Your task to perform on an android device: Clear all items from cart on ebay. Add duracell triple a to the cart on ebay, then select checkout. Image 0: 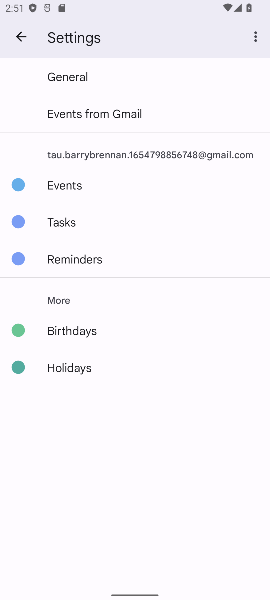
Step 0: press home button
Your task to perform on an android device: Clear all items from cart on ebay. Add duracell triple a to the cart on ebay, then select checkout. Image 1: 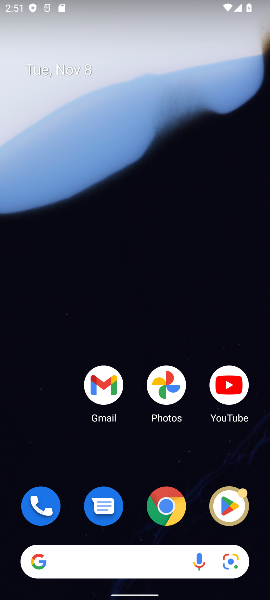
Step 1: click (173, 517)
Your task to perform on an android device: Clear all items from cart on ebay. Add duracell triple a to the cart on ebay, then select checkout. Image 2: 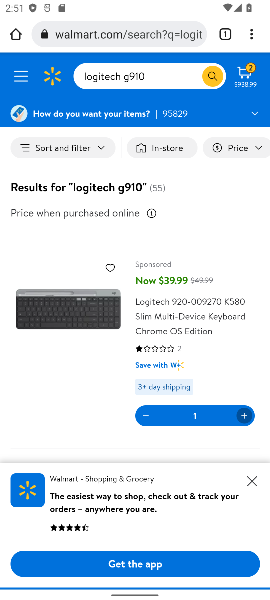
Step 2: click (174, 44)
Your task to perform on an android device: Clear all items from cart on ebay. Add duracell triple a to the cart on ebay, then select checkout. Image 3: 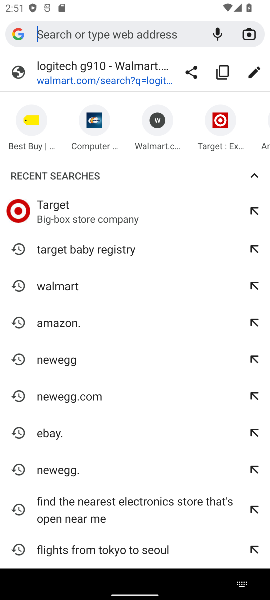
Step 3: type "ebay"
Your task to perform on an android device: Clear all items from cart on ebay. Add duracell triple a to the cart on ebay, then select checkout. Image 4: 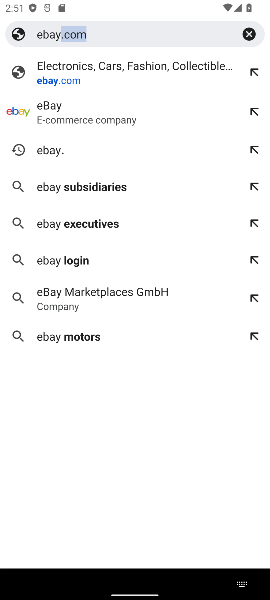
Step 4: click (77, 74)
Your task to perform on an android device: Clear all items from cart on ebay. Add duracell triple a to the cart on ebay, then select checkout. Image 5: 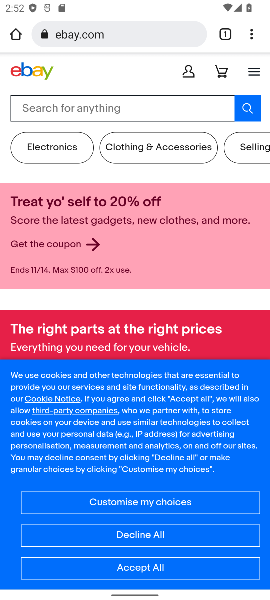
Step 5: click (178, 109)
Your task to perform on an android device: Clear all items from cart on ebay. Add duracell triple a to the cart on ebay, then select checkout. Image 6: 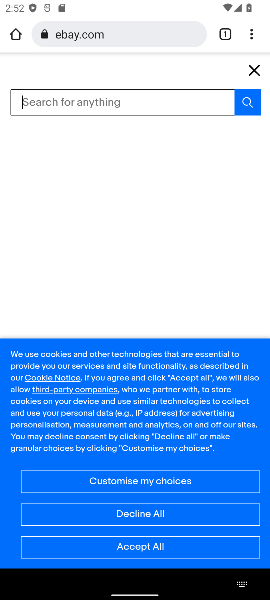
Step 6: type "duracell triple"
Your task to perform on an android device: Clear all items from cart on ebay. Add duracell triple a to the cart on ebay, then select checkout. Image 7: 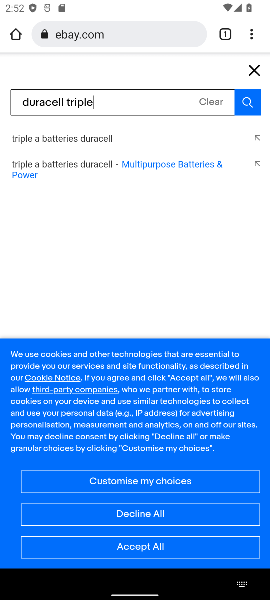
Step 7: click (242, 107)
Your task to perform on an android device: Clear all items from cart on ebay. Add duracell triple a to the cart on ebay, then select checkout. Image 8: 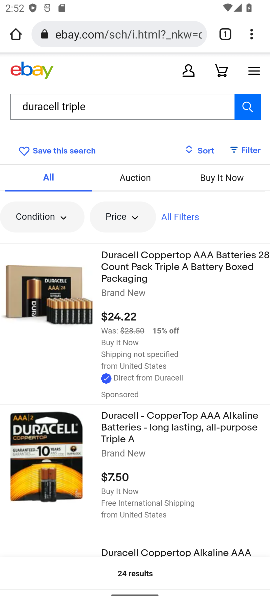
Step 8: click (176, 302)
Your task to perform on an android device: Clear all items from cart on ebay. Add duracell triple a to the cart on ebay, then select checkout. Image 9: 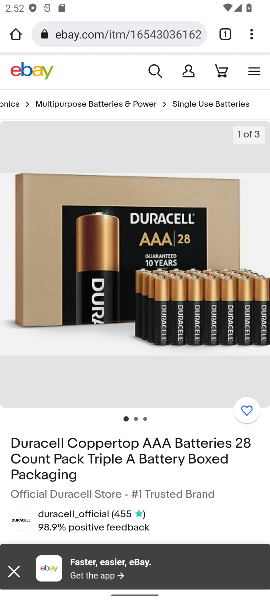
Step 9: drag from (180, 445) to (185, 239)
Your task to perform on an android device: Clear all items from cart on ebay. Add duracell triple a to the cart on ebay, then select checkout. Image 10: 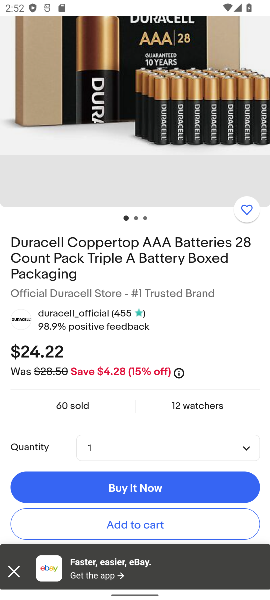
Step 10: click (187, 489)
Your task to perform on an android device: Clear all items from cart on ebay. Add duracell triple a to the cart on ebay, then select checkout. Image 11: 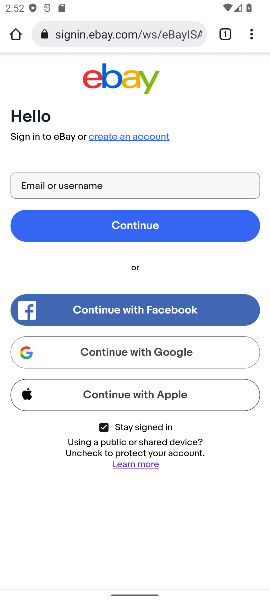
Step 11: task complete